Your task to perform on an android device: Search for "dell alienware" on ebay.com, select the first entry, and add it to the cart. Image 0: 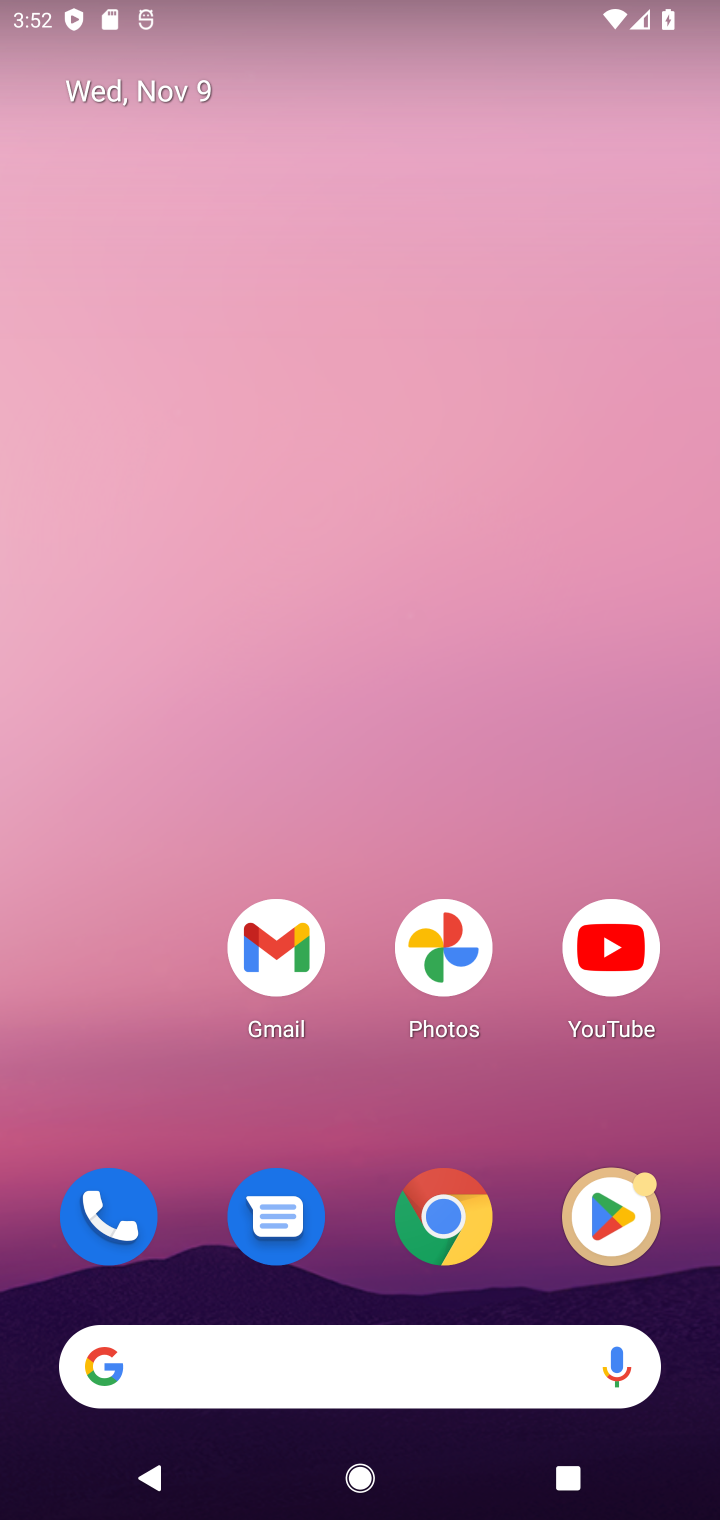
Step 0: drag from (426, 867) to (505, 120)
Your task to perform on an android device: Search for "dell alienware" on ebay.com, select the first entry, and add it to the cart. Image 1: 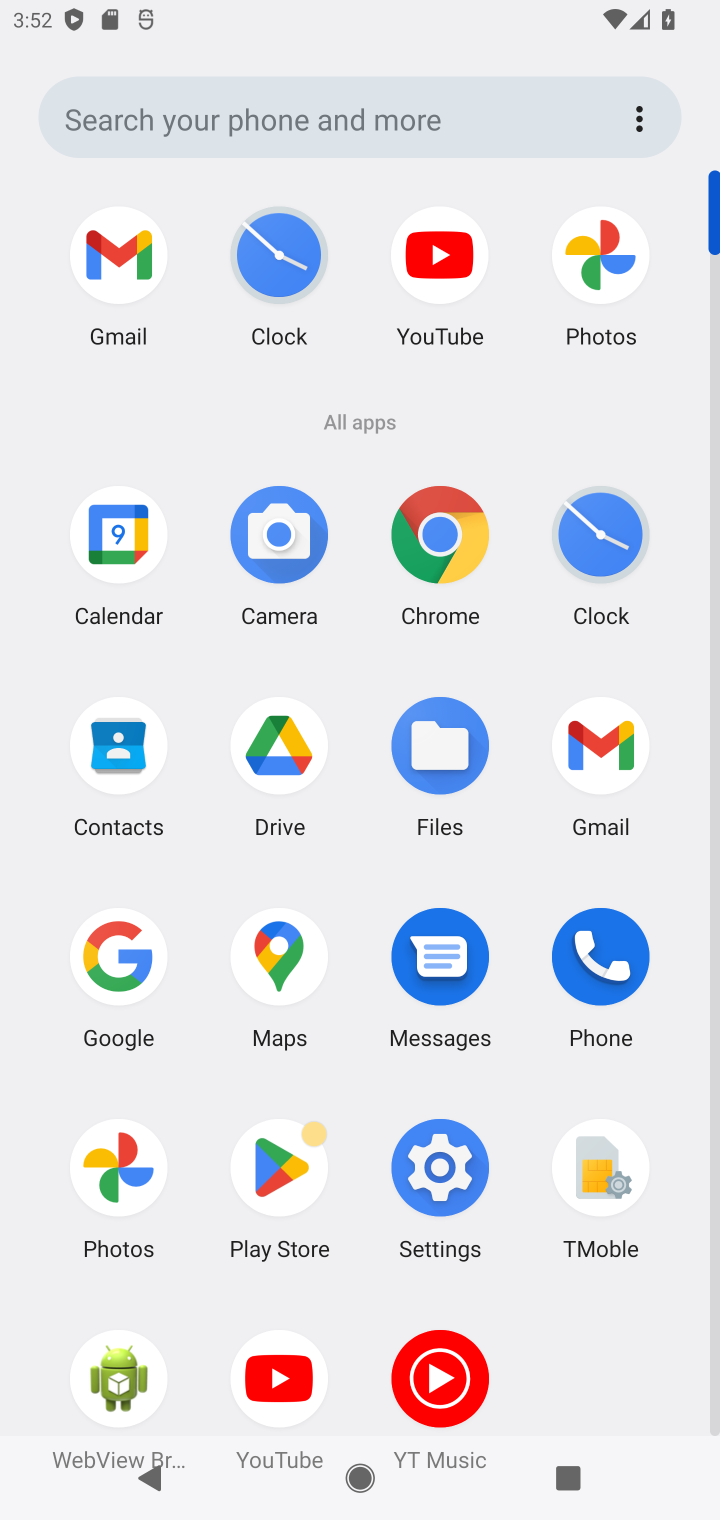
Step 1: click (446, 538)
Your task to perform on an android device: Search for "dell alienware" on ebay.com, select the first entry, and add it to the cart. Image 2: 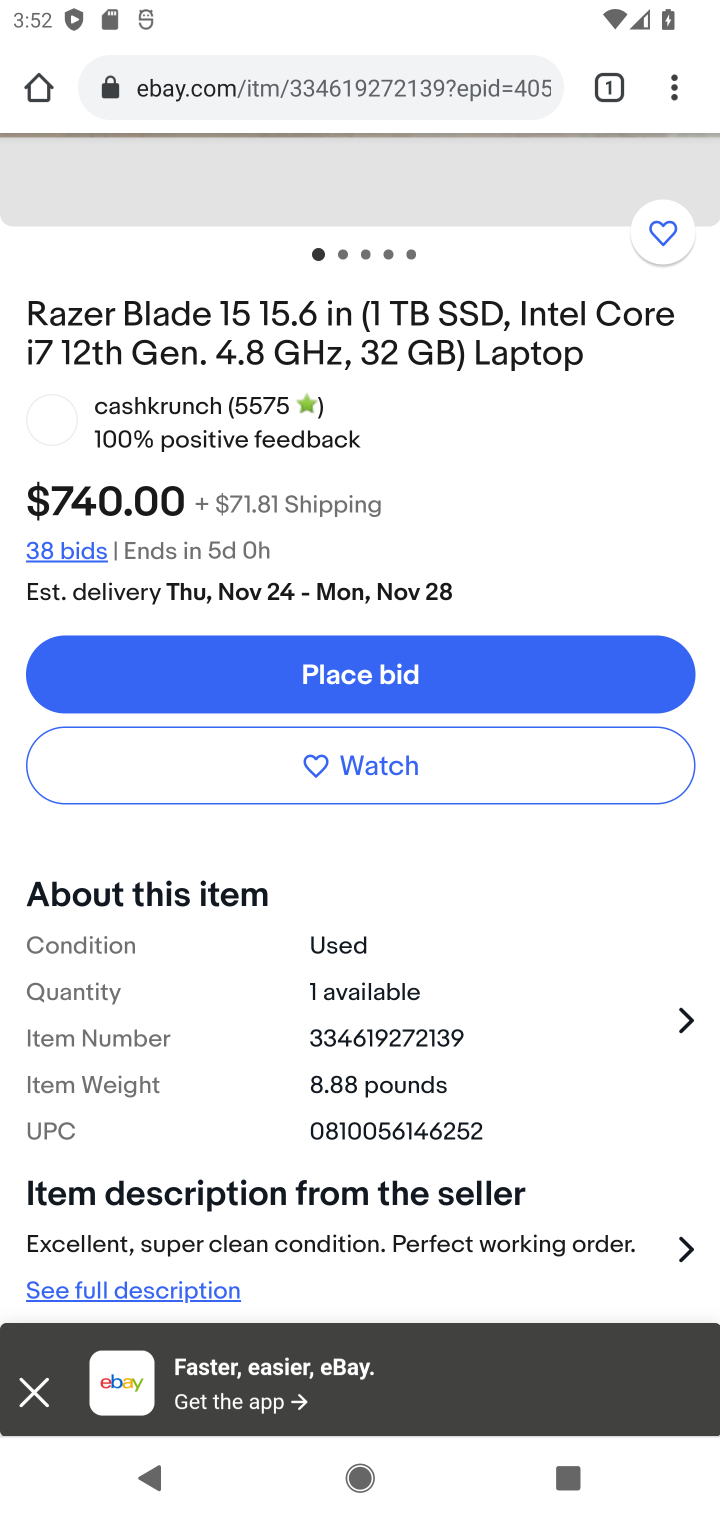
Step 2: click (414, 85)
Your task to perform on an android device: Search for "dell alienware" on ebay.com, select the first entry, and add it to the cart. Image 3: 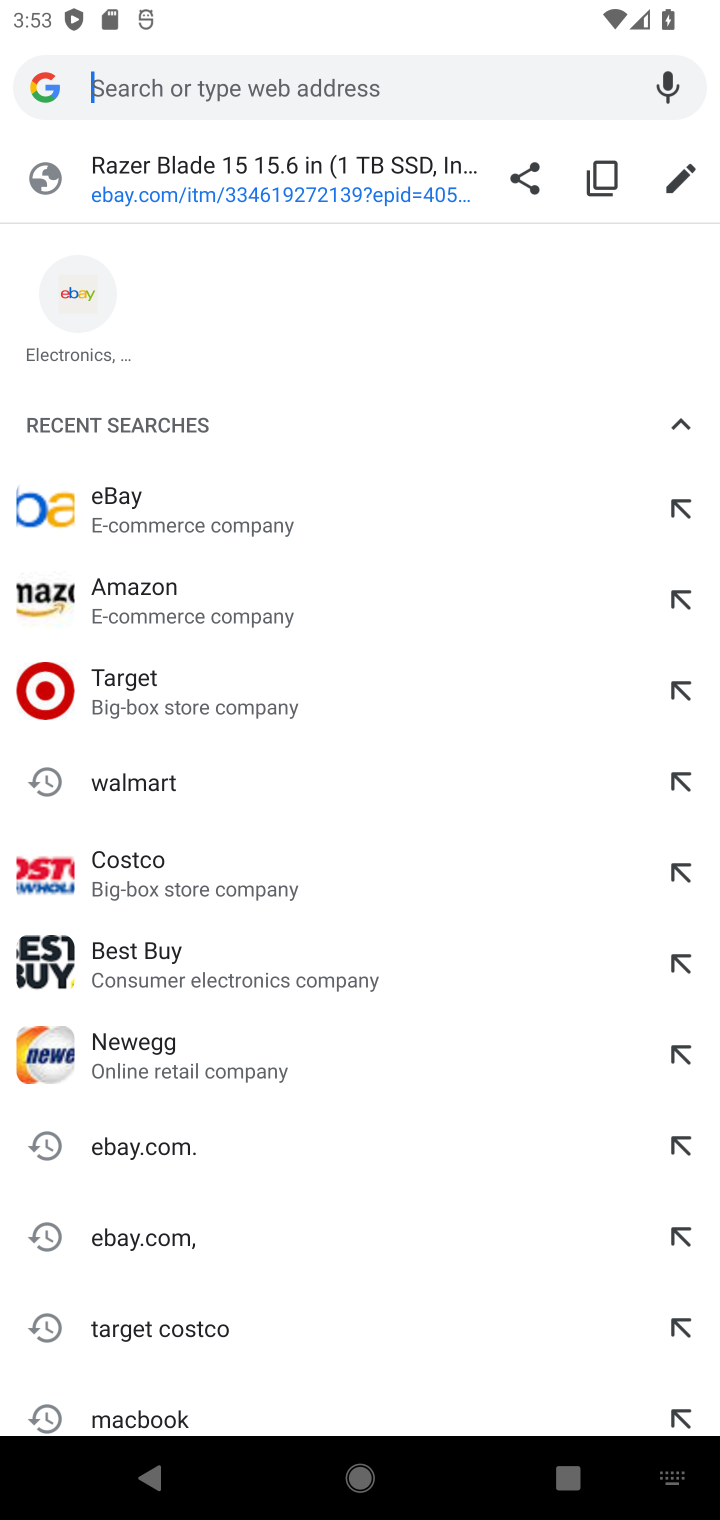
Step 3: type "ebay.com"
Your task to perform on an android device: Search for "dell alienware" on ebay.com, select the first entry, and add it to the cart. Image 4: 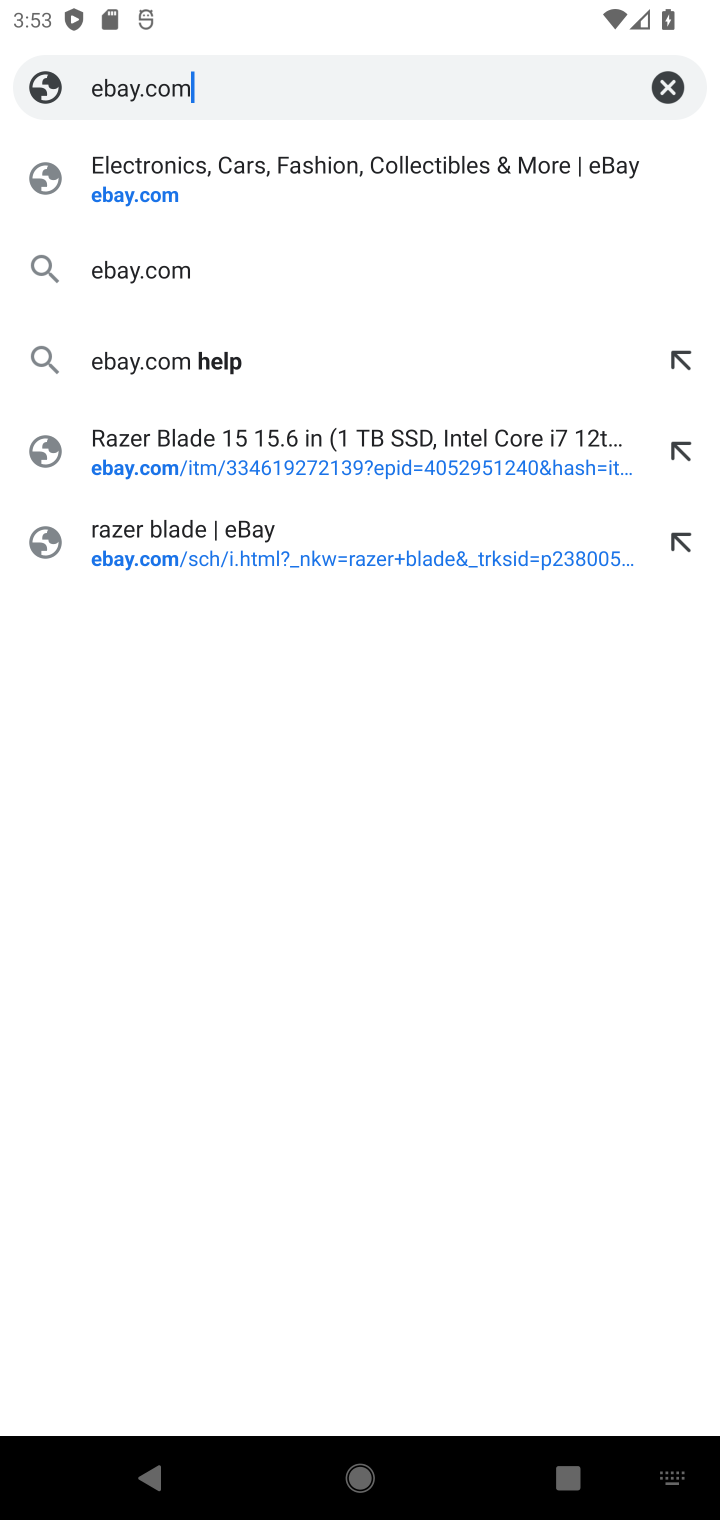
Step 4: press enter
Your task to perform on an android device: Search for "dell alienware" on ebay.com, select the first entry, and add it to the cart. Image 5: 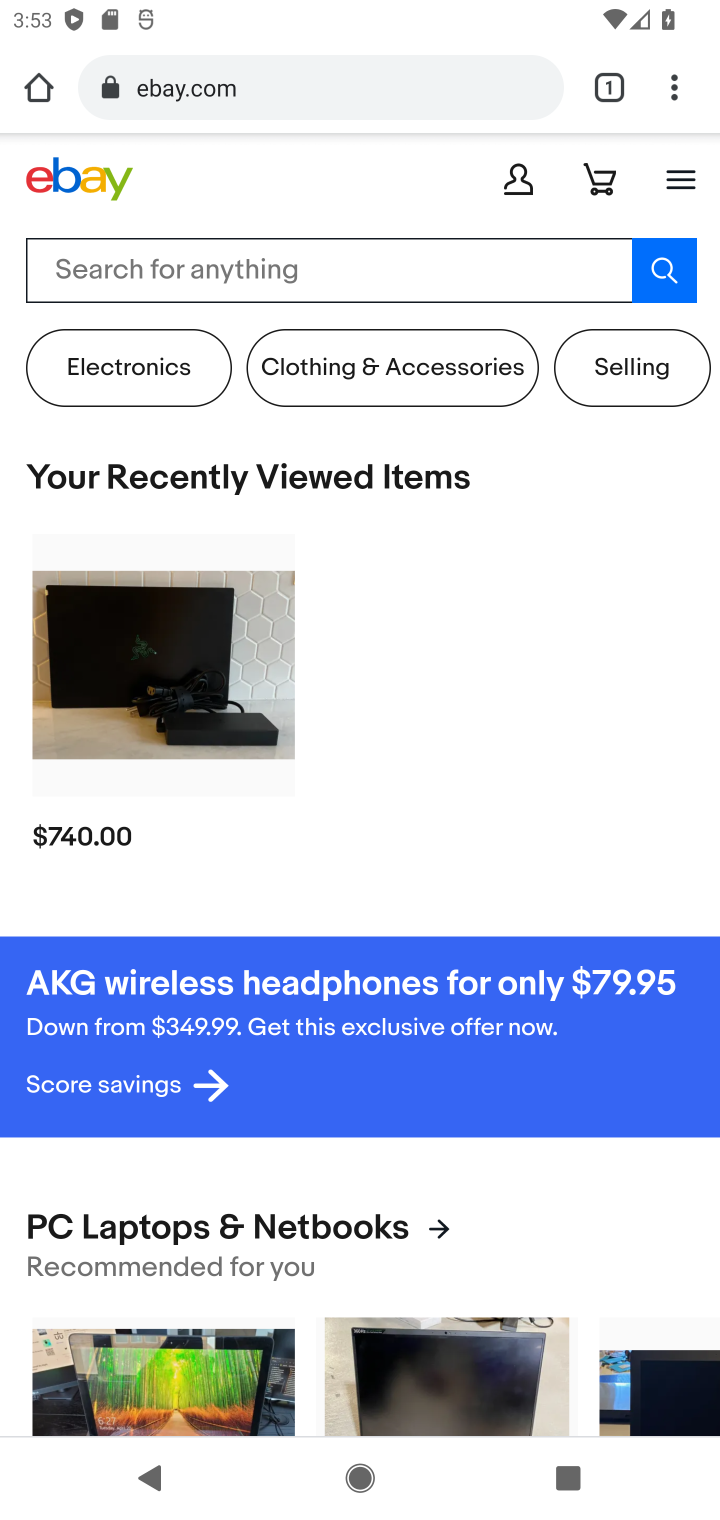
Step 5: click (300, 274)
Your task to perform on an android device: Search for "dell alienware" on ebay.com, select the first entry, and add it to the cart. Image 6: 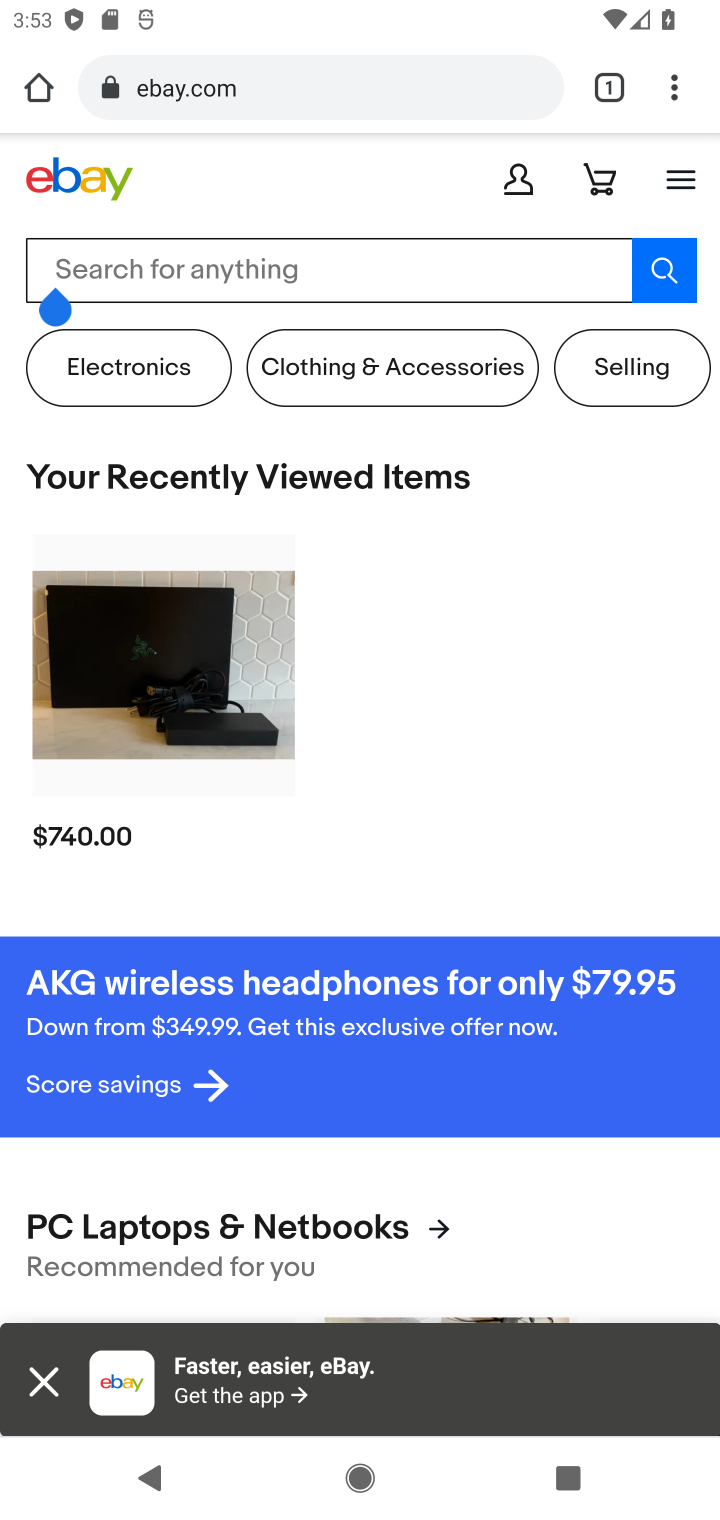
Step 6: type "dell  alienware"
Your task to perform on an android device: Search for "dell alienware" on ebay.com, select the first entry, and add it to the cart. Image 7: 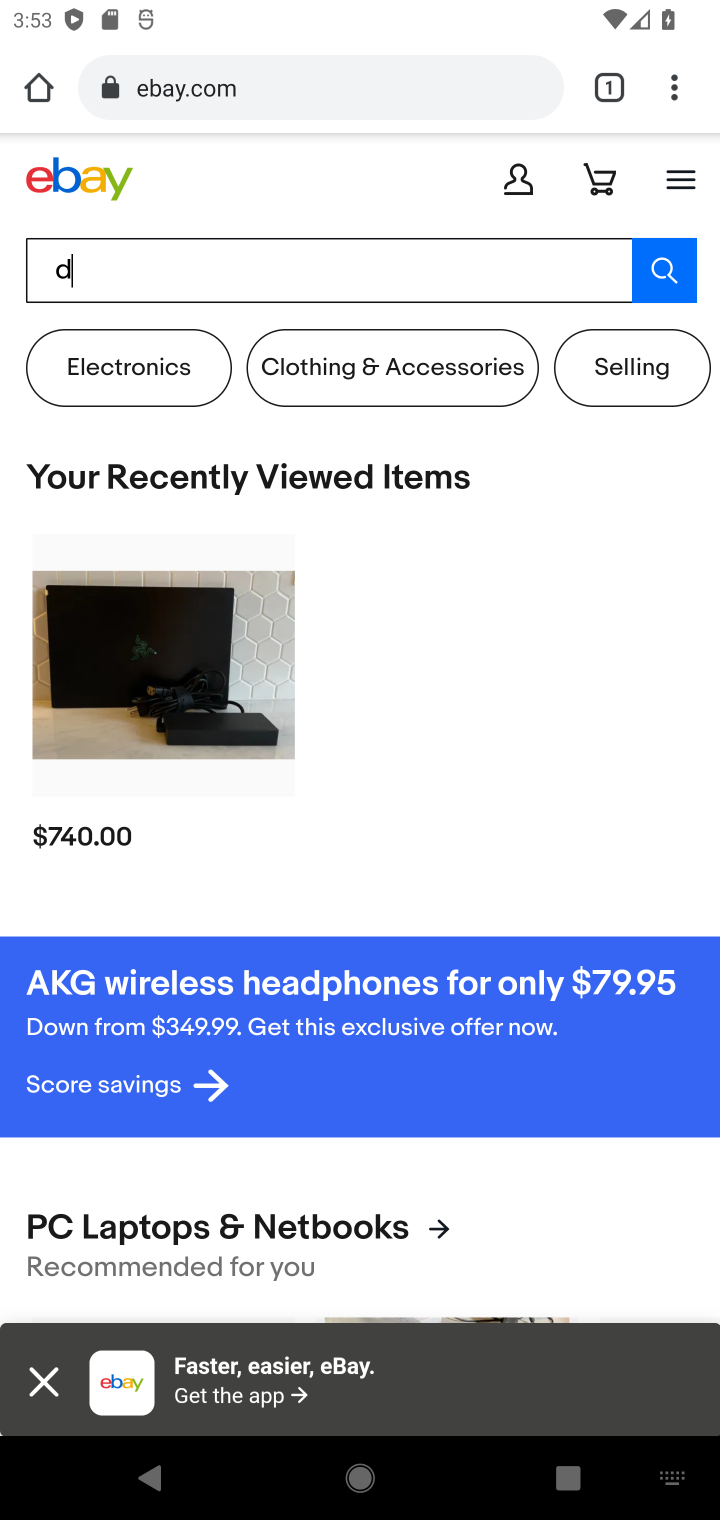
Step 7: press enter
Your task to perform on an android device: Search for "dell alienware" on ebay.com, select the first entry, and add it to the cart. Image 8: 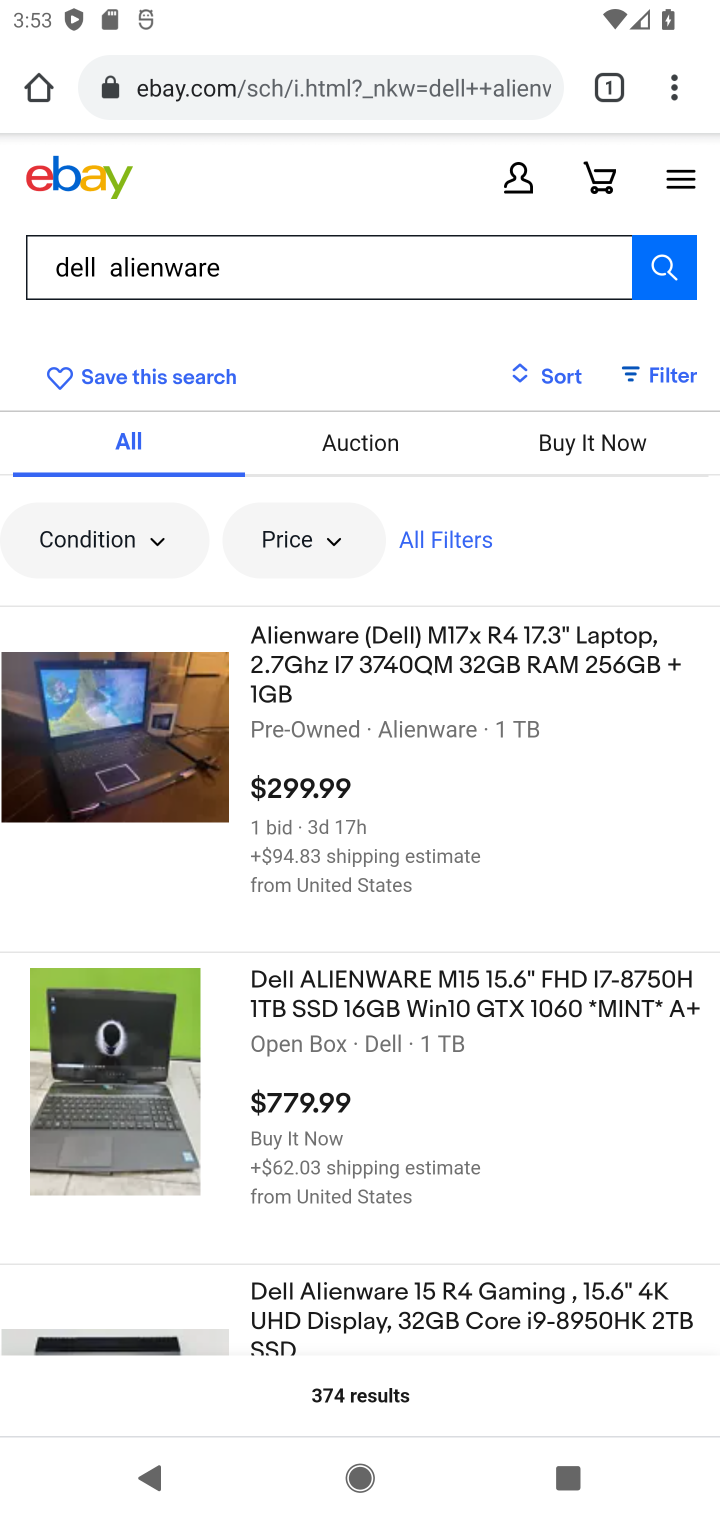
Step 8: click (292, 679)
Your task to perform on an android device: Search for "dell alienware" on ebay.com, select the first entry, and add it to the cart. Image 9: 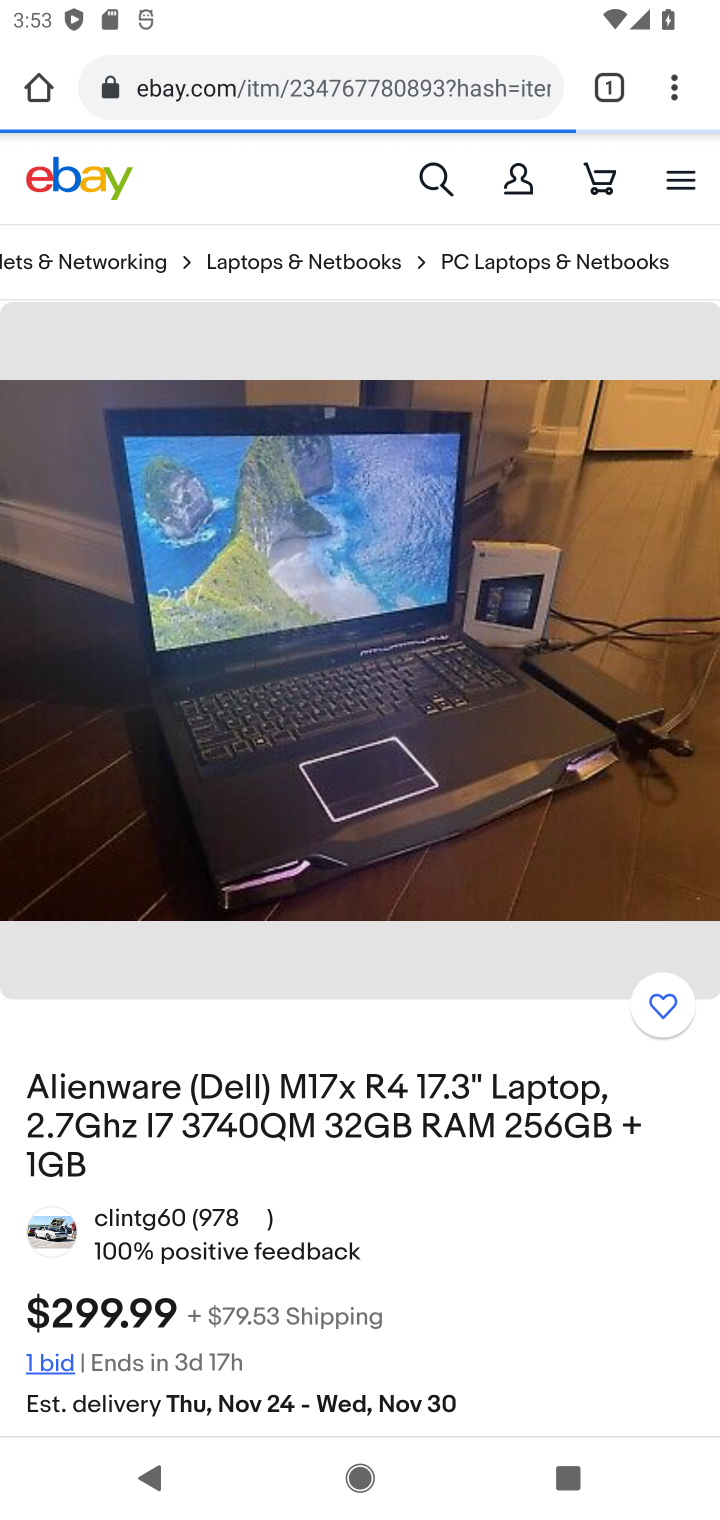
Step 9: task complete